Your task to perform on an android device: open a new tab in the chrome app Image 0: 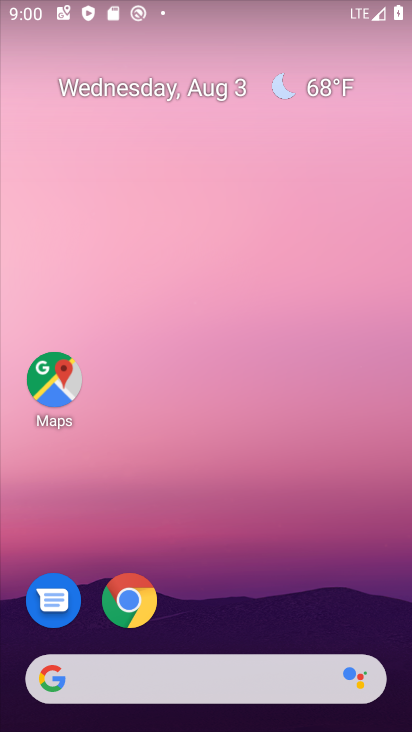
Step 0: click (125, 599)
Your task to perform on an android device: open a new tab in the chrome app Image 1: 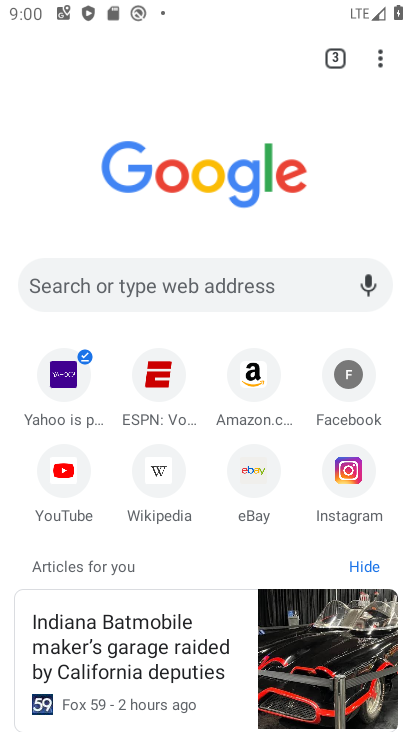
Step 1: click (384, 56)
Your task to perform on an android device: open a new tab in the chrome app Image 2: 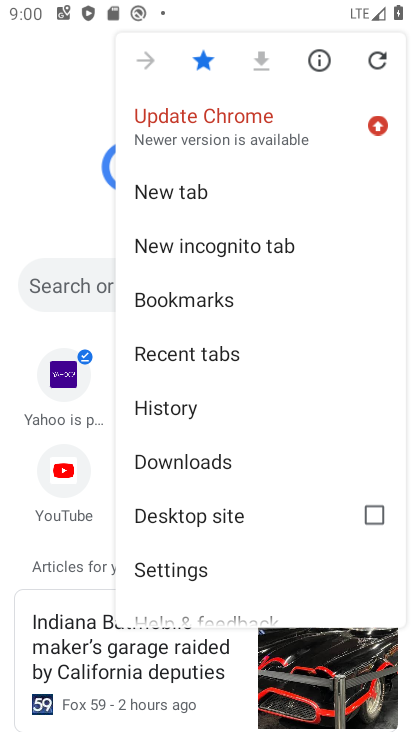
Step 2: click (200, 198)
Your task to perform on an android device: open a new tab in the chrome app Image 3: 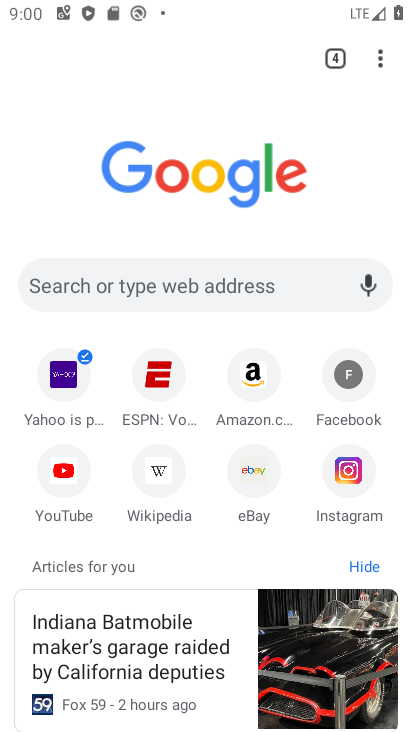
Step 3: task complete